Your task to perform on an android device: Go to Reddit.com Image 0: 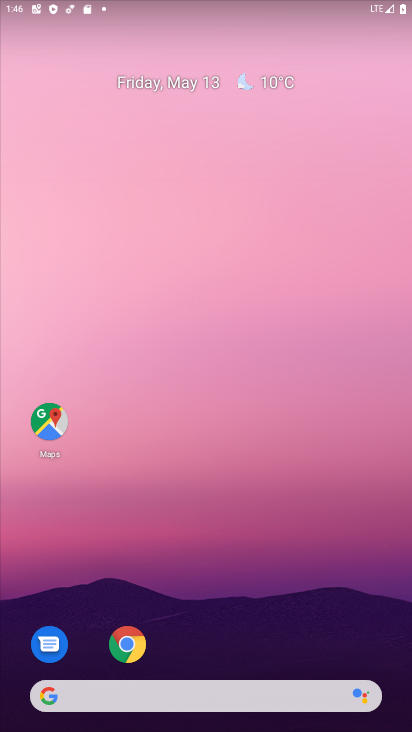
Step 0: drag from (293, 654) to (308, 7)
Your task to perform on an android device: Go to Reddit.com Image 1: 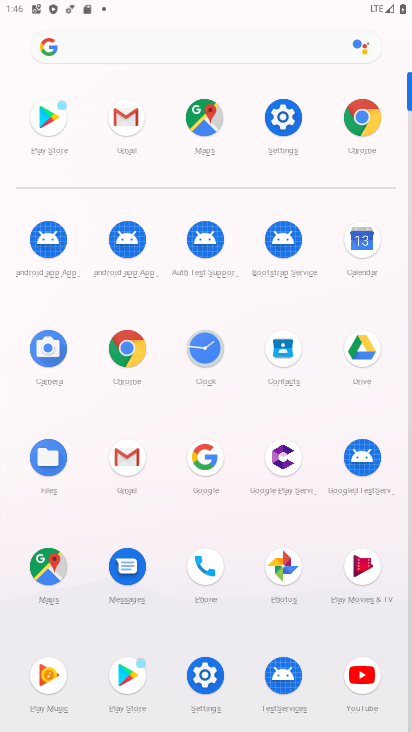
Step 1: click (135, 358)
Your task to perform on an android device: Go to Reddit.com Image 2: 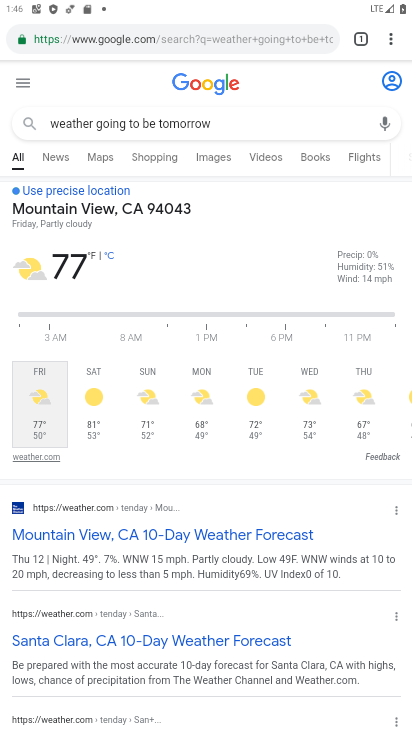
Step 2: click (254, 34)
Your task to perform on an android device: Go to Reddit.com Image 3: 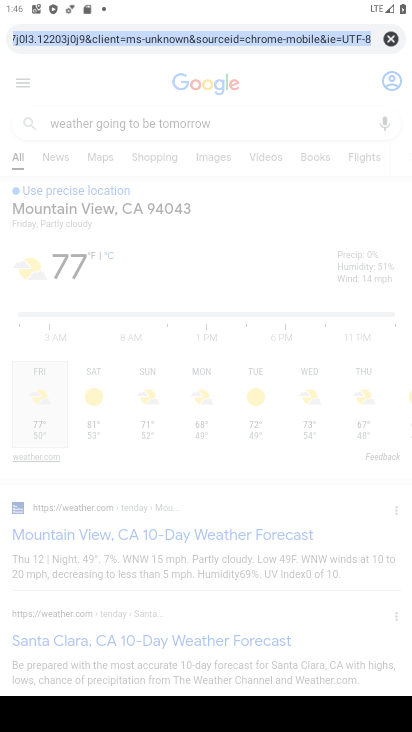
Step 3: click (384, 41)
Your task to perform on an android device: Go to Reddit.com Image 4: 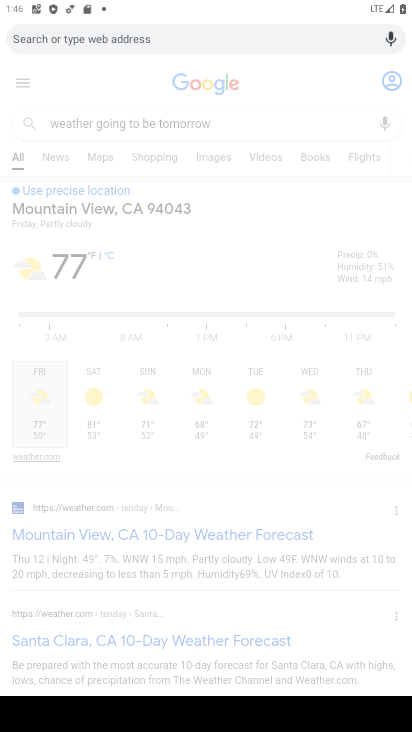
Step 4: type "reddit.com"
Your task to perform on an android device: Go to Reddit.com Image 5: 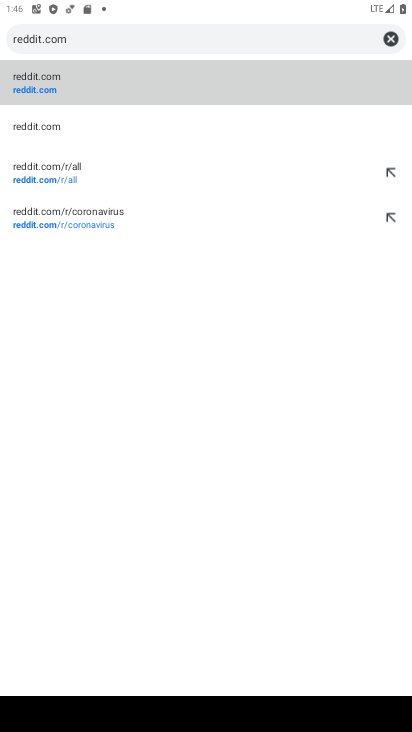
Step 5: click (233, 96)
Your task to perform on an android device: Go to Reddit.com Image 6: 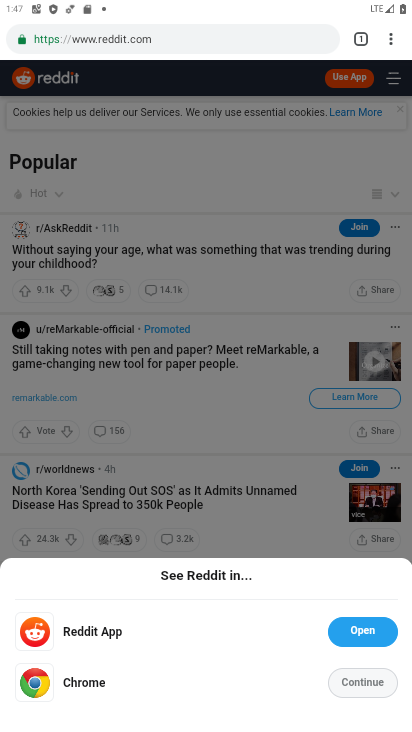
Step 6: task complete